Your task to perform on an android device: add a contact in the contacts app Image 0: 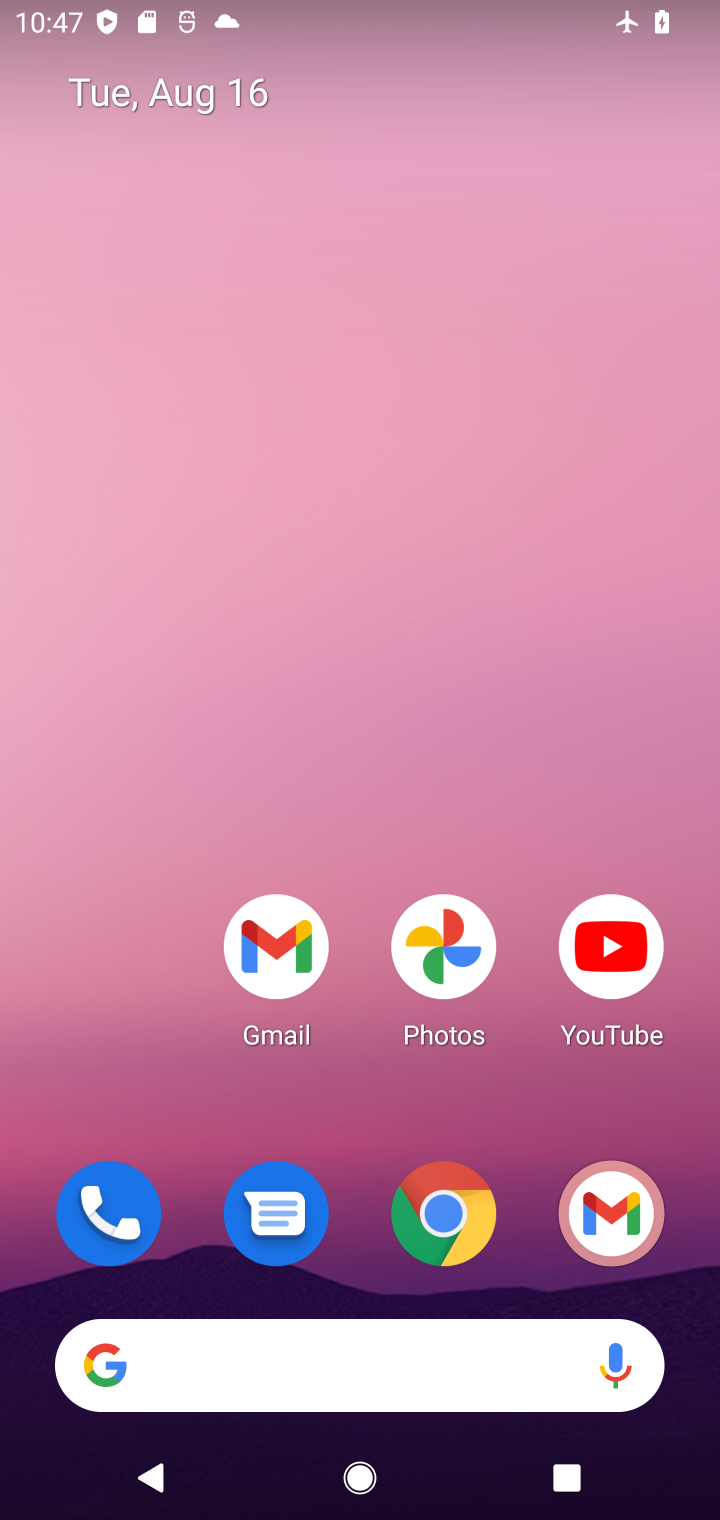
Step 0: drag from (361, 1249) to (370, 918)
Your task to perform on an android device: add a contact in the contacts app Image 1: 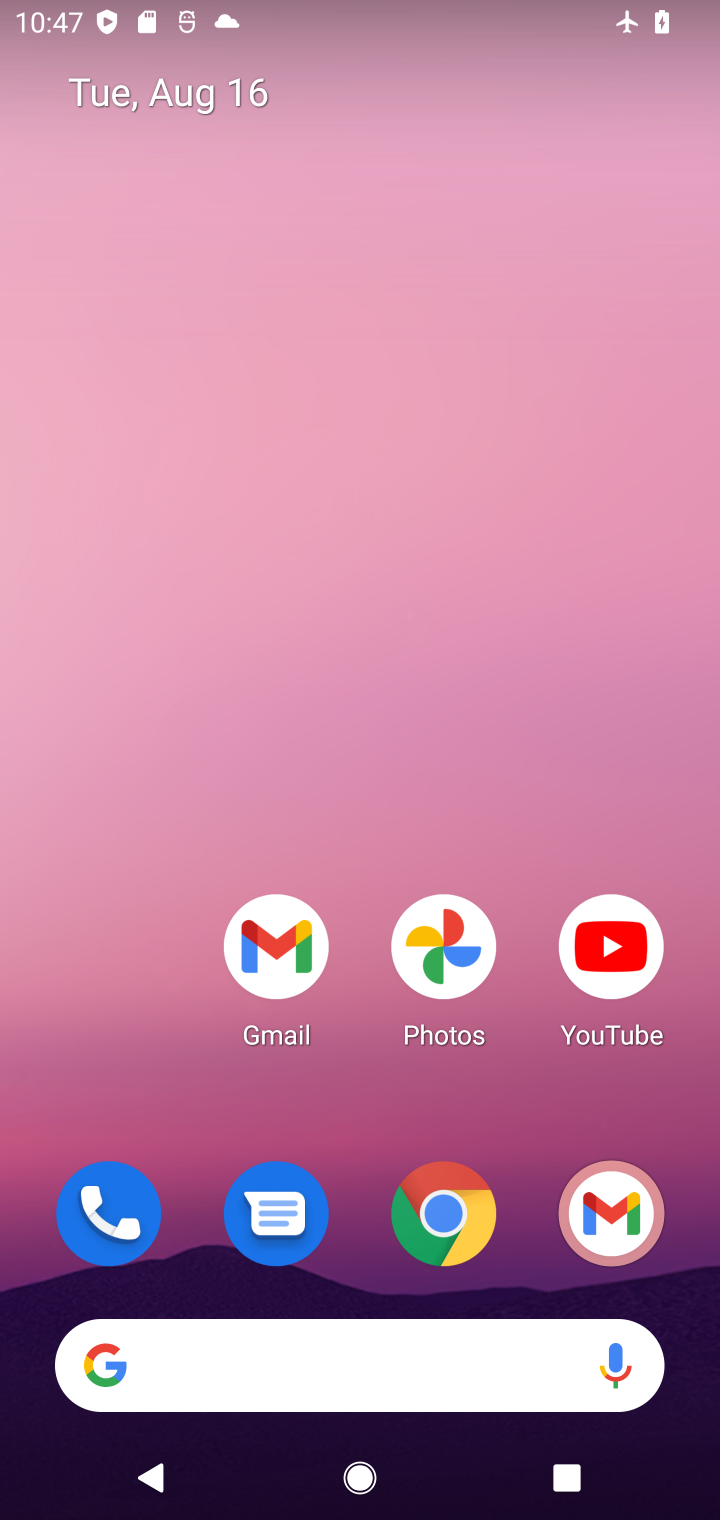
Step 1: drag from (304, 1247) to (388, 282)
Your task to perform on an android device: add a contact in the contacts app Image 2: 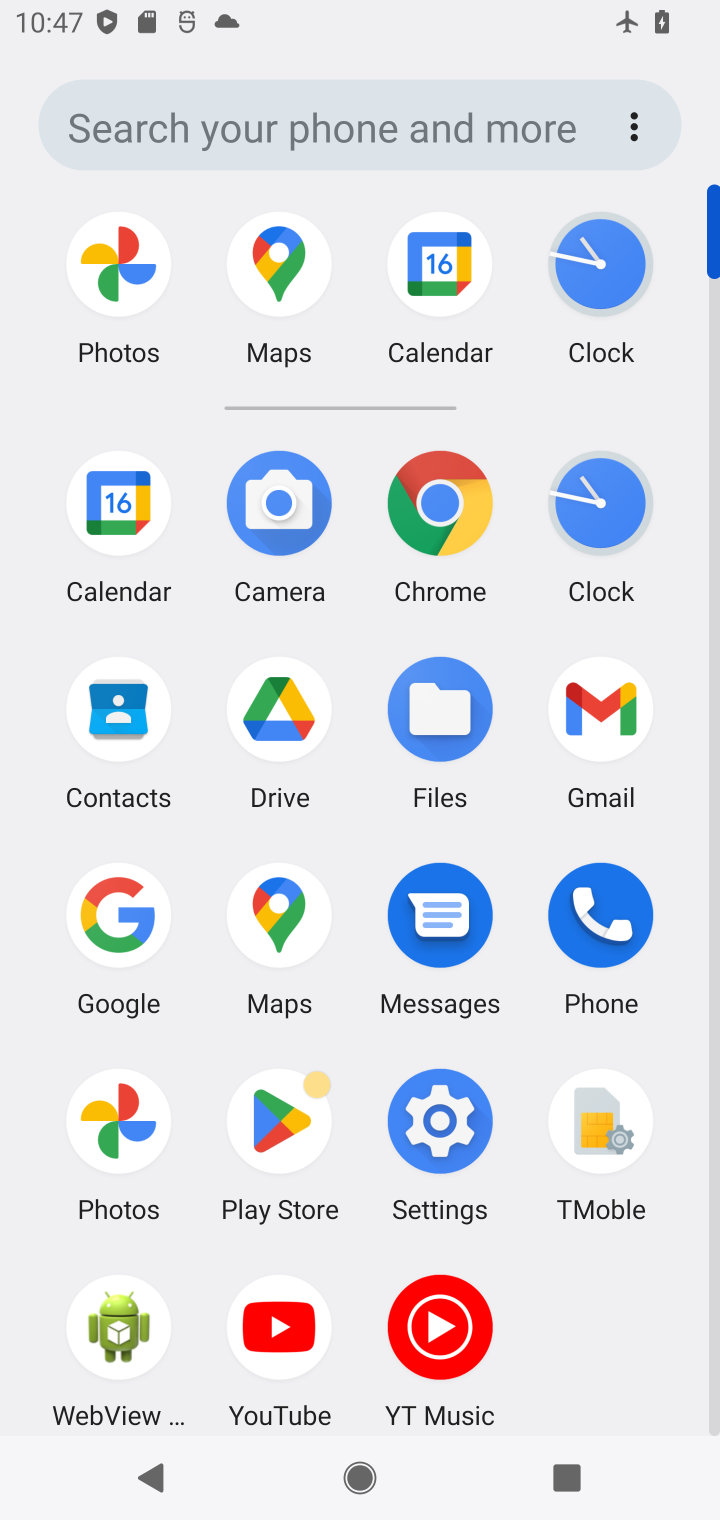
Step 2: click (615, 890)
Your task to perform on an android device: add a contact in the contacts app Image 3: 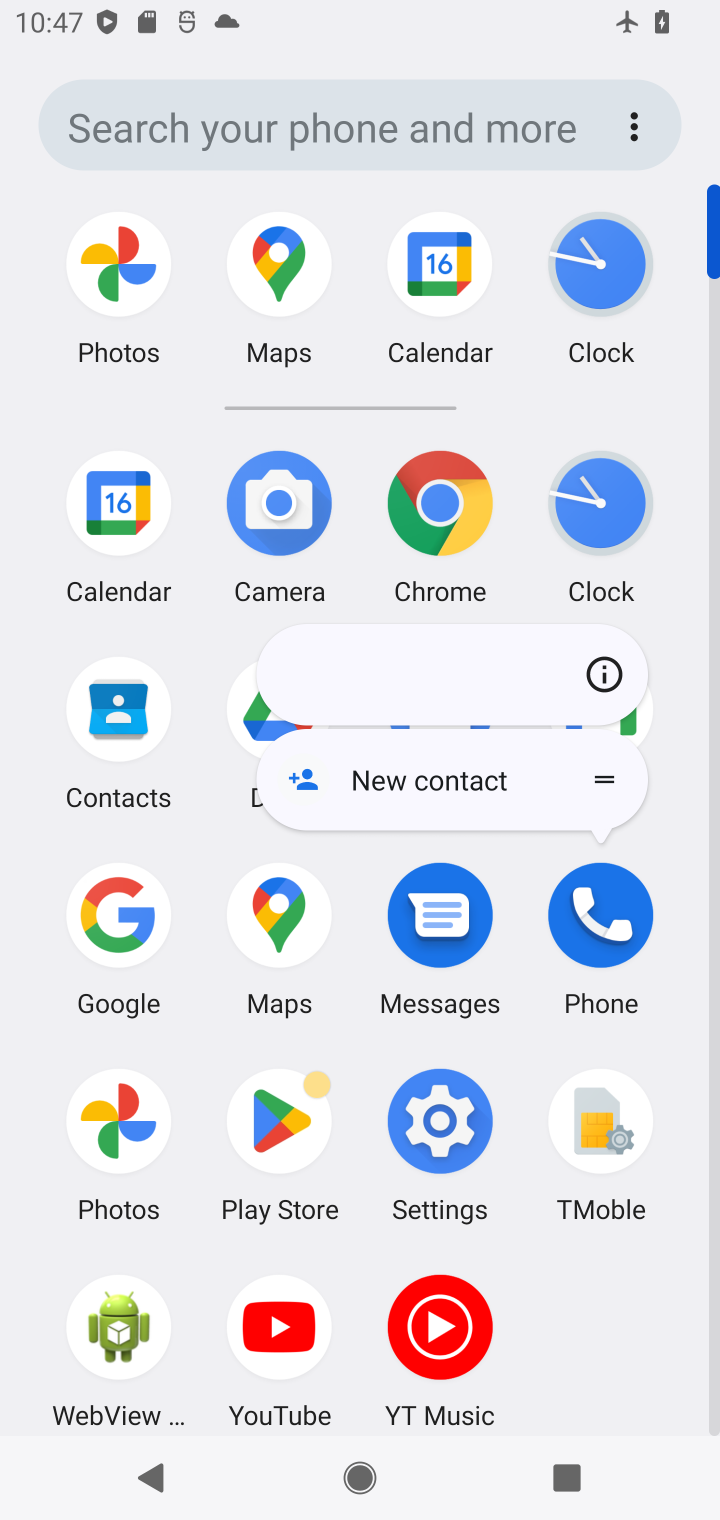
Step 3: click (586, 897)
Your task to perform on an android device: add a contact in the contacts app Image 4: 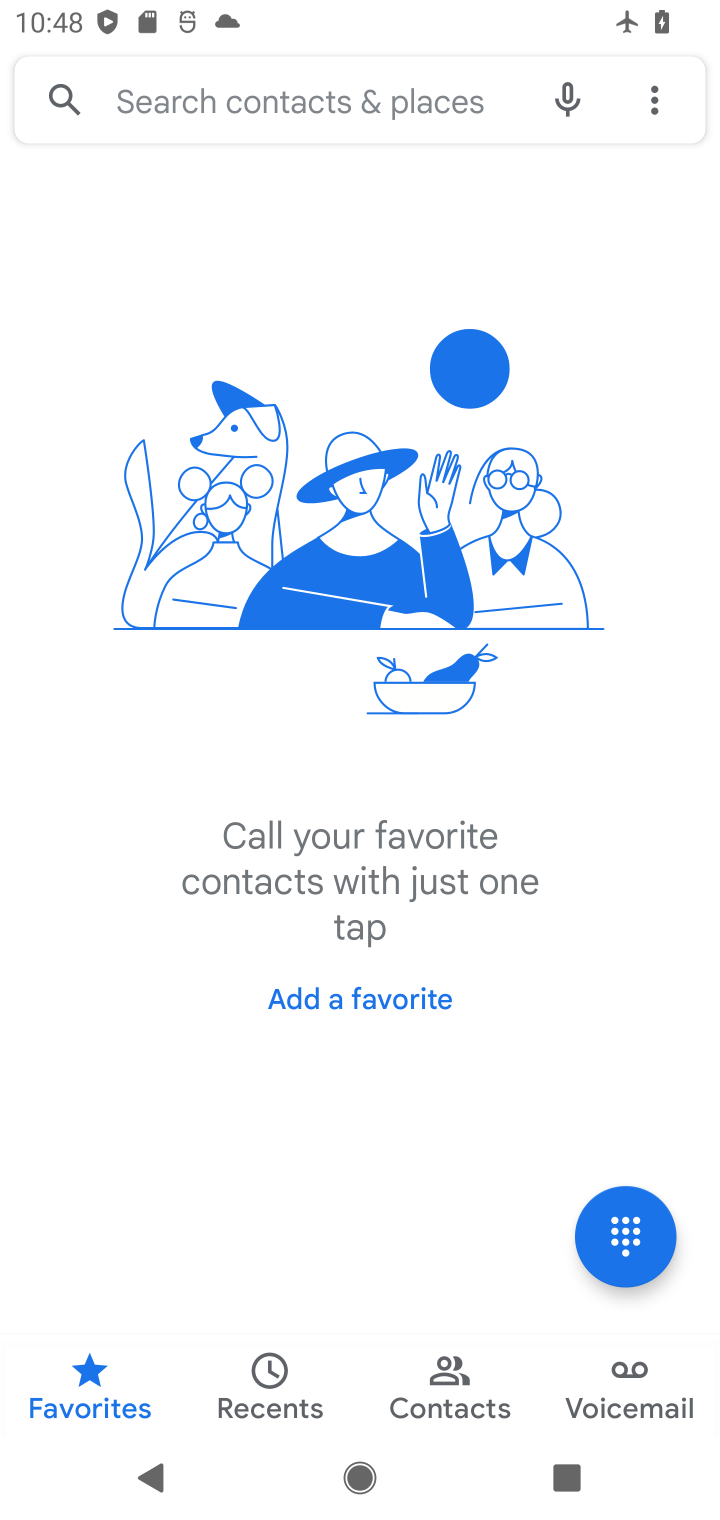
Step 4: click (474, 1383)
Your task to perform on an android device: add a contact in the contacts app Image 5: 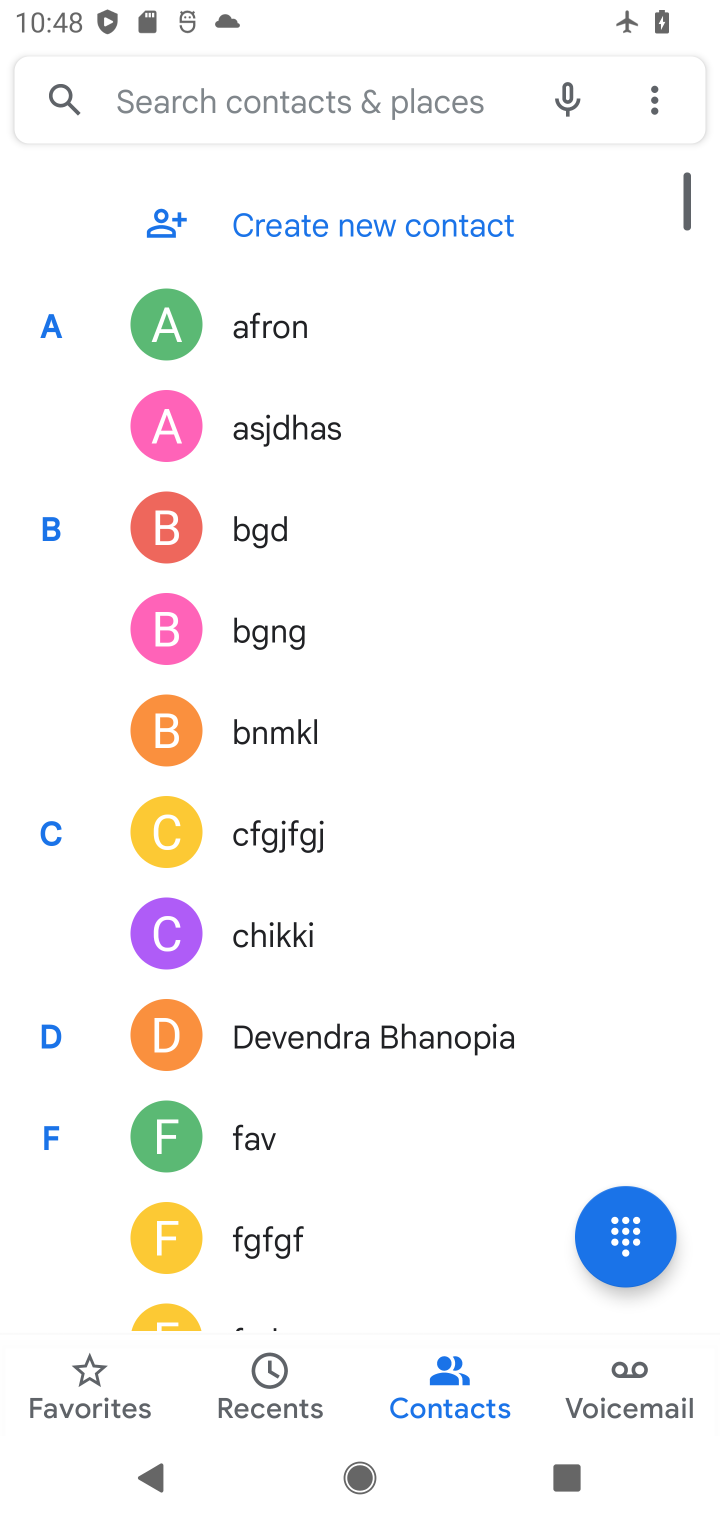
Step 5: click (341, 207)
Your task to perform on an android device: add a contact in the contacts app Image 6: 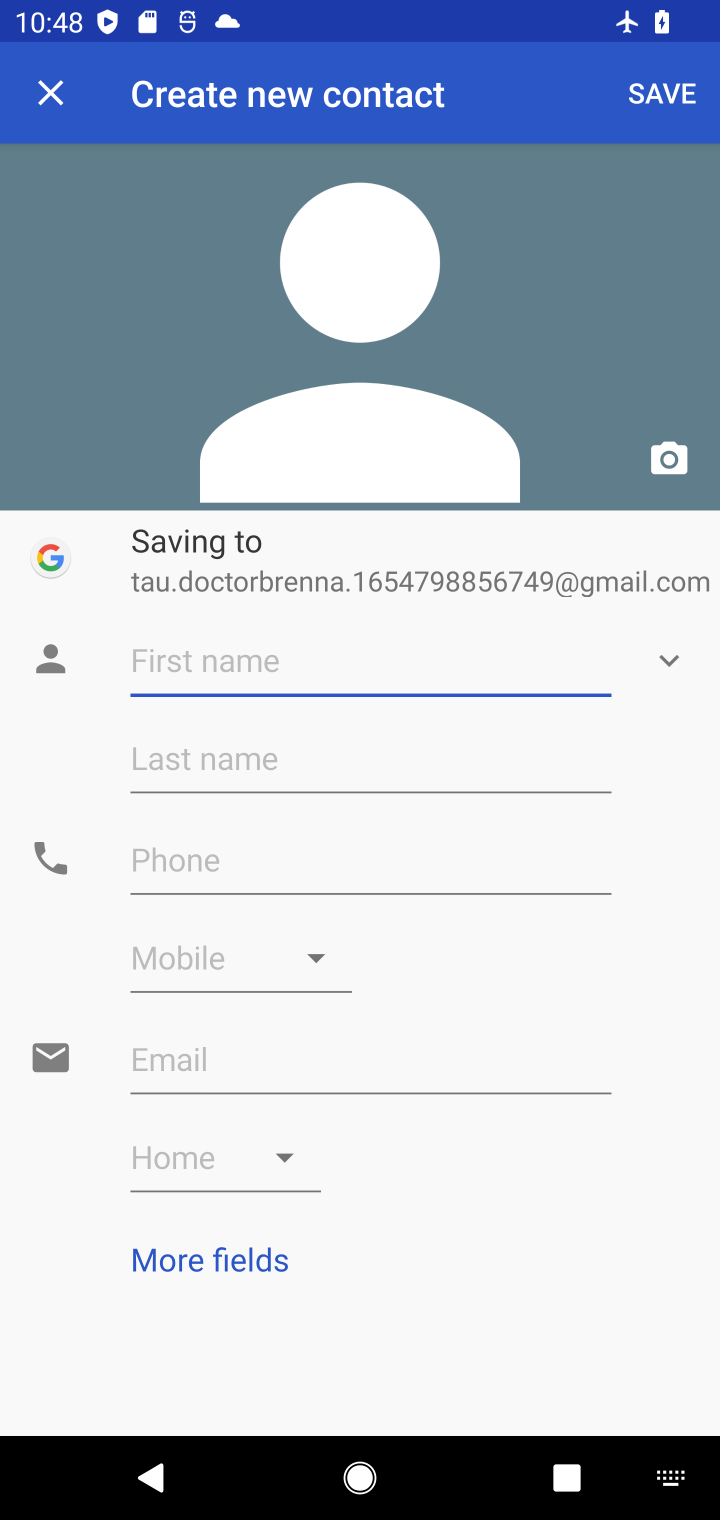
Step 6: click (325, 656)
Your task to perform on an android device: add a contact in the contacts app Image 7: 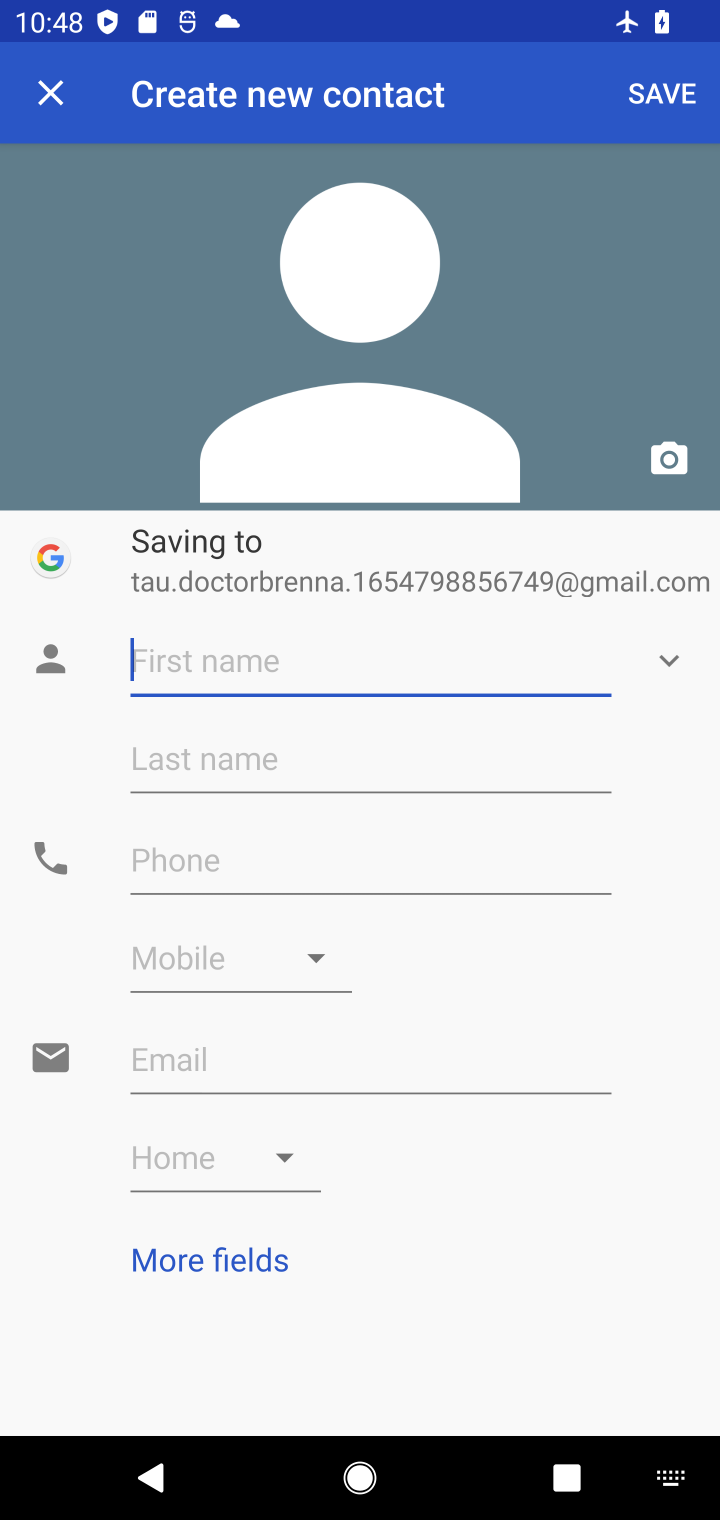
Step 7: type "reshma "
Your task to perform on an android device: add a contact in the contacts app Image 8: 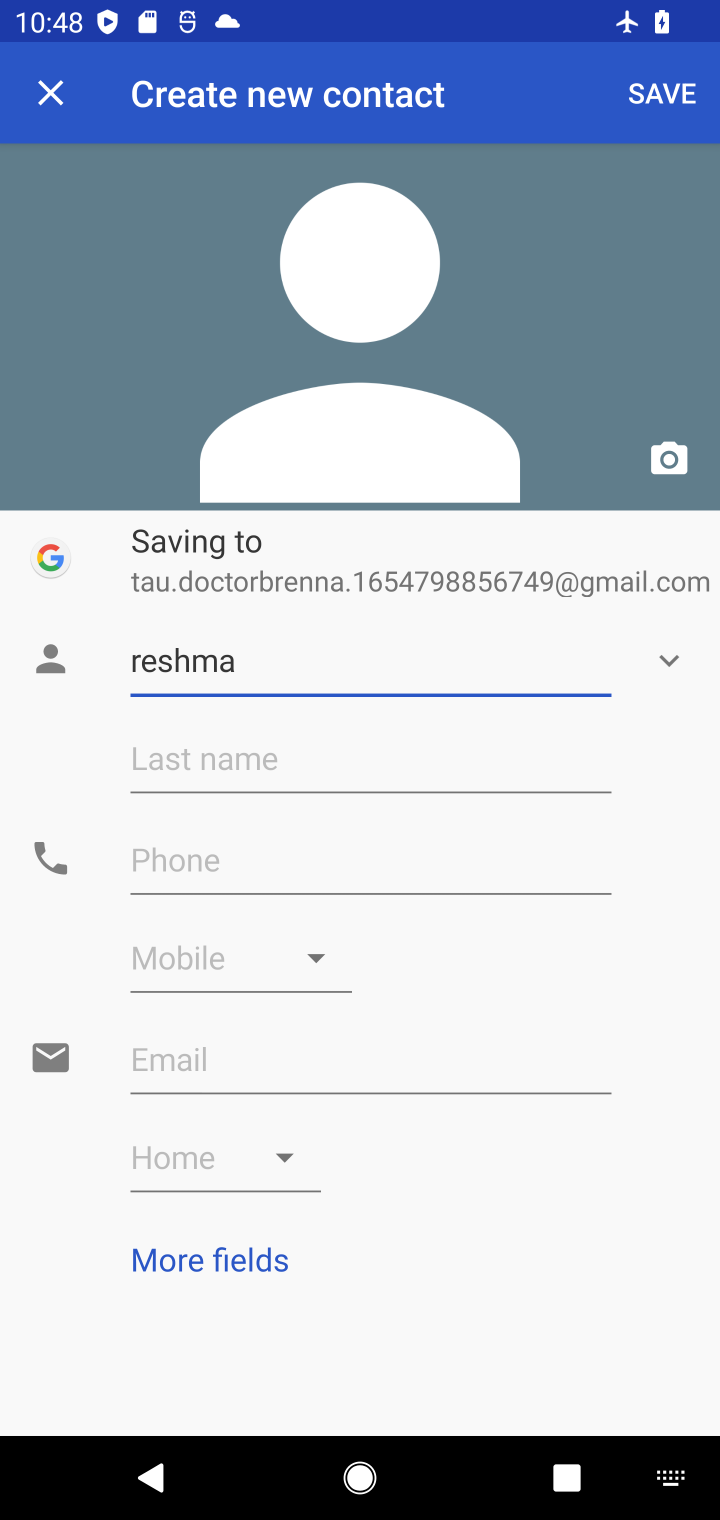
Step 8: click (311, 862)
Your task to perform on an android device: add a contact in the contacts app Image 9: 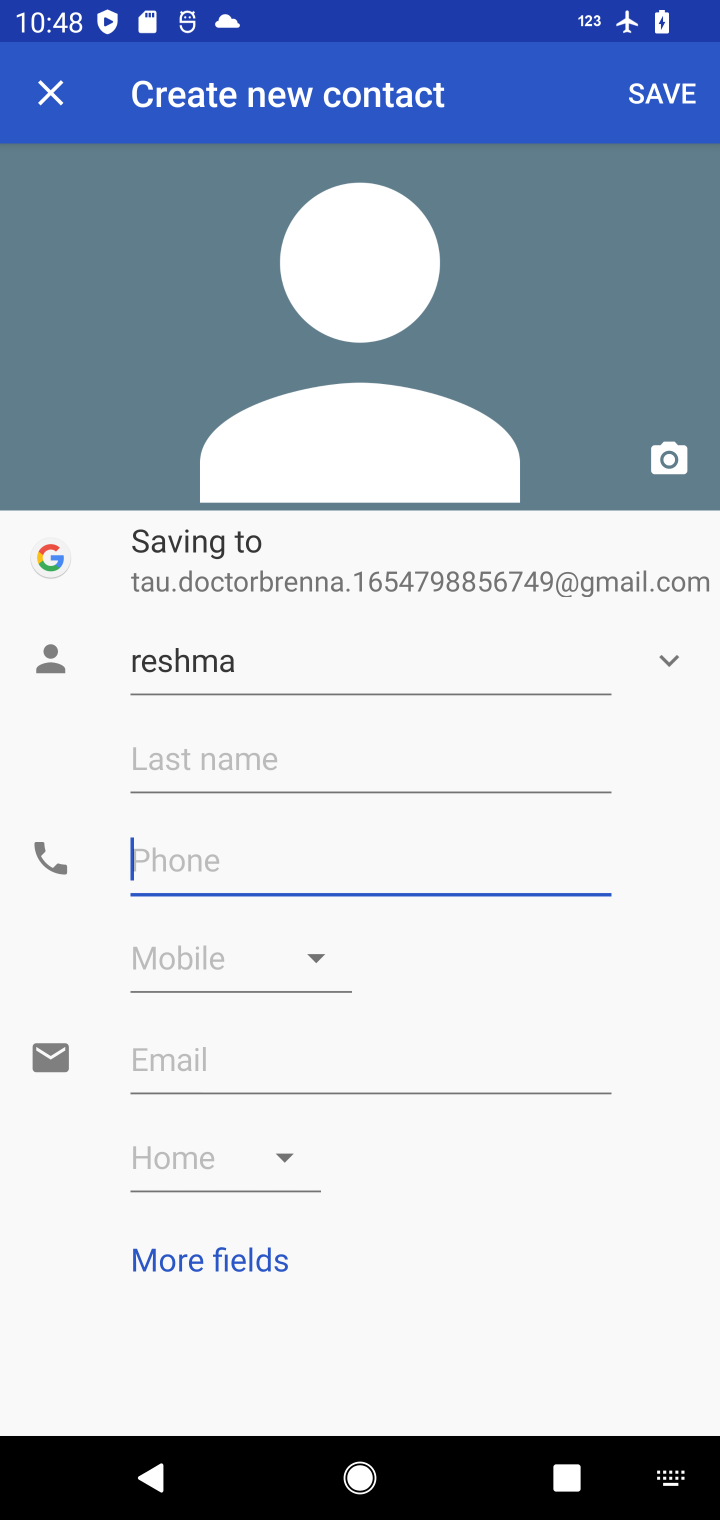
Step 9: type "0987654321 "
Your task to perform on an android device: add a contact in the contacts app Image 10: 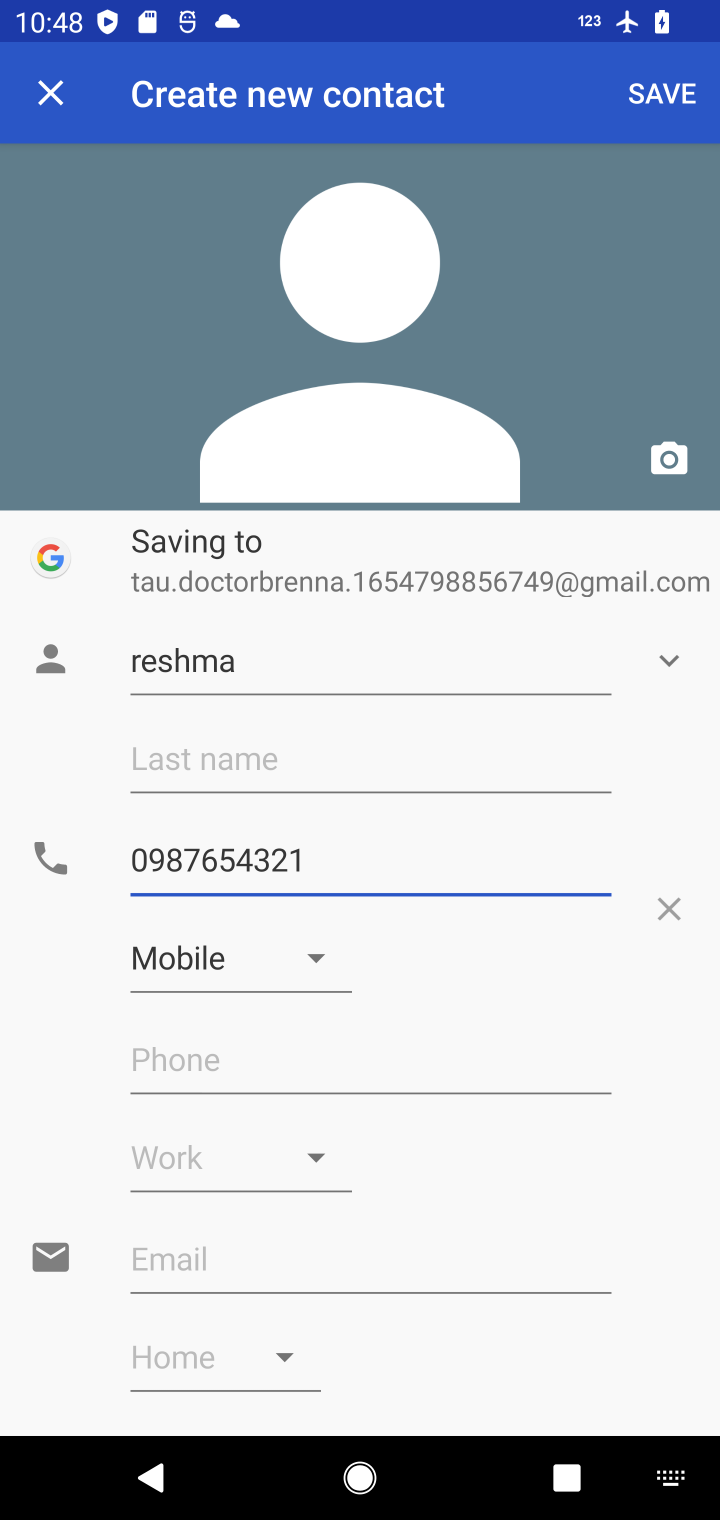
Step 10: click (634, 94)
Your task to perform on an android device: add a contact in the contacts app Image 11: 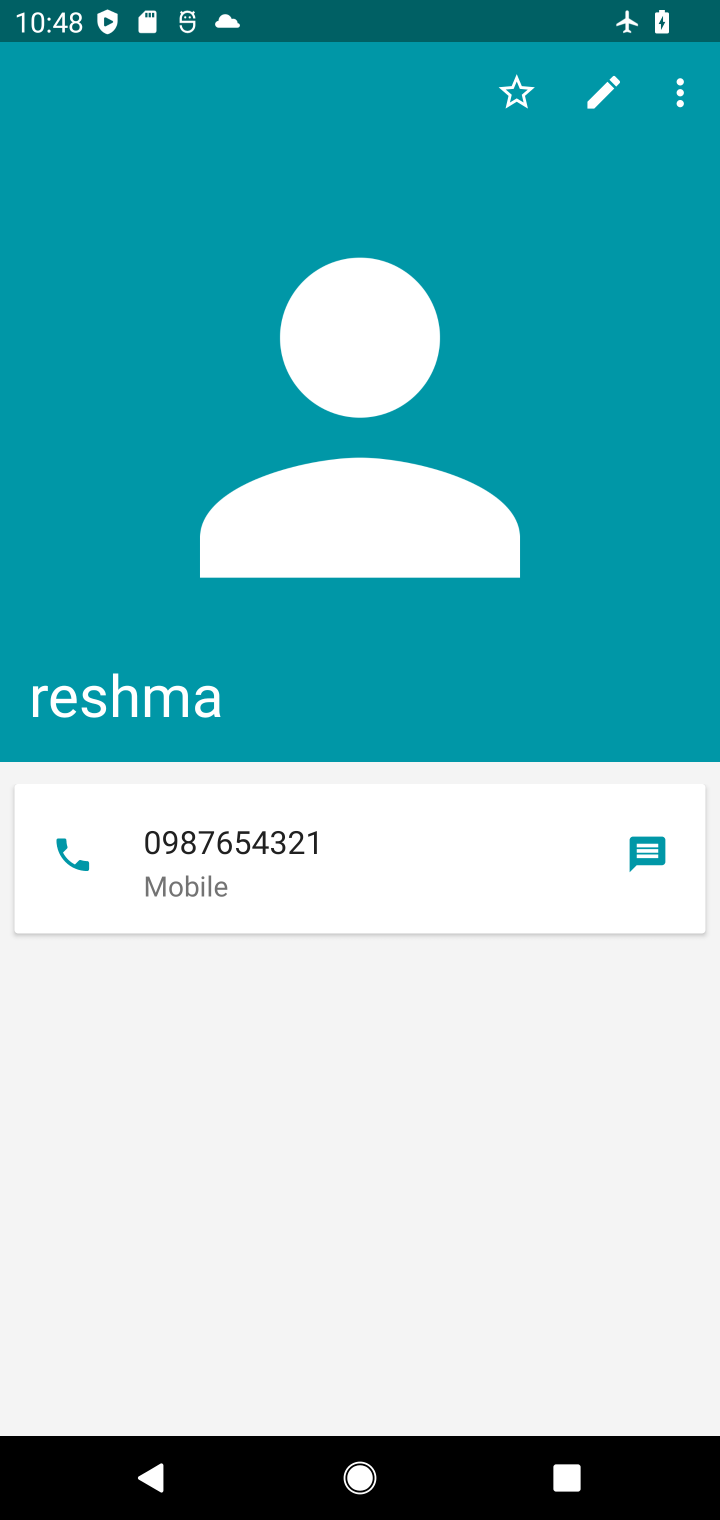
Step 11: task complete